Your task to perform on an android device: change alarm snooze length Image 0: 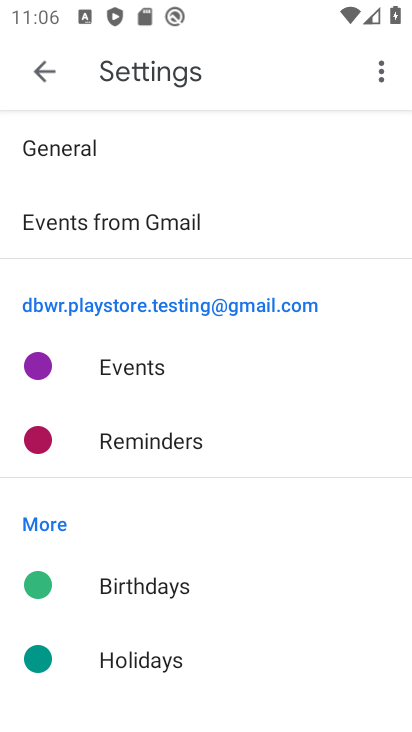
Step 0: press home button
Your task to perform on an android device: change alarm snooze length Image 1: 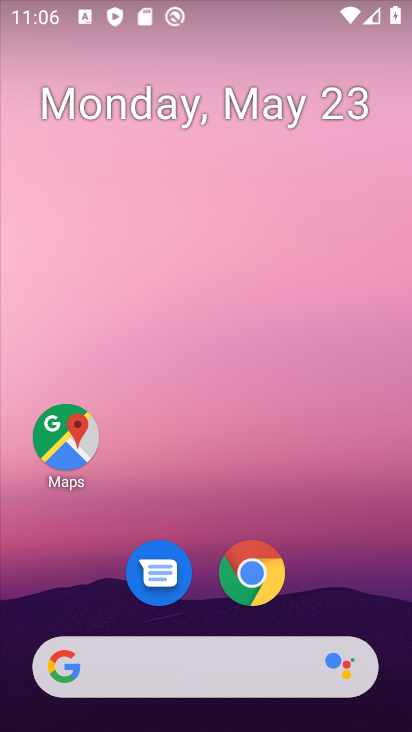
Step 1: drag from (168, 627) to (196, 130)
Your task to perform on an android device: change alarm snooze length Image 2: 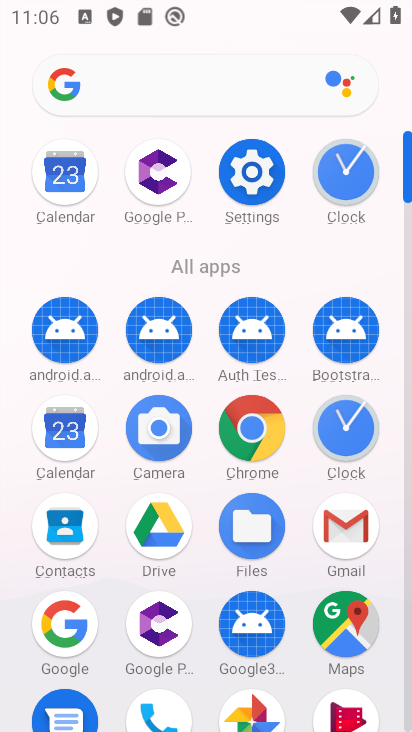
Step 2: click (328, 170)
Your task to perform on an android device: change alarm snooze length Image 3: 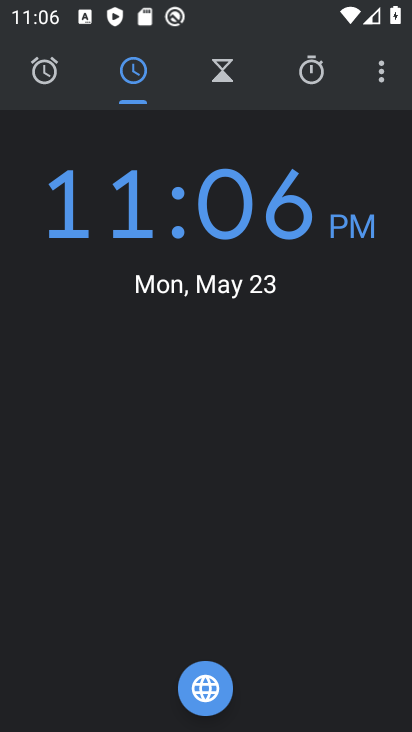
Step 3: click (375, 75)
Your task to perform on an android device: change alarm snooze length Image 4: 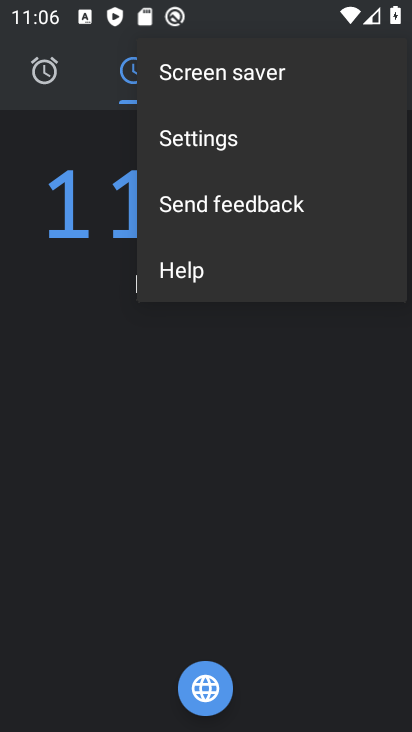
Step 4: click (233, 133)
Your task to perform on an android device: change alarm snooze length Image 5: 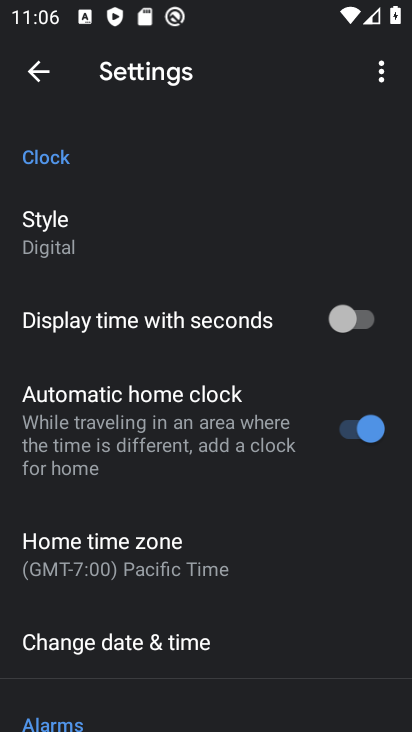
Step 5: drag from (83, 640) to (115, 268)
Your task to perform on an android device: change alarm snooze length Image 6: 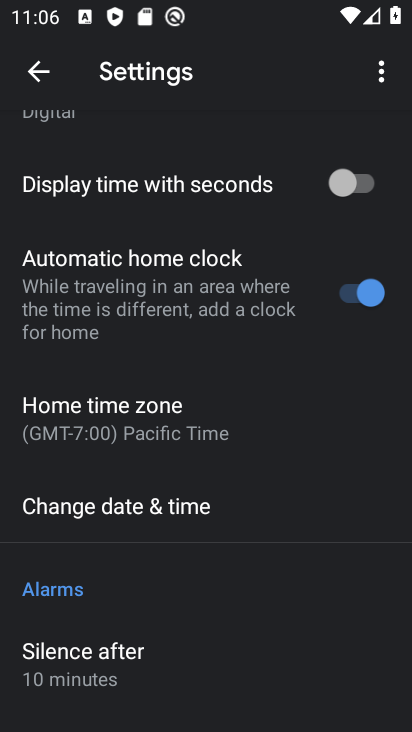
Step 6: drag from (117, 621) to (132, 98)
Your task to perform on an android device: change alarm snooze length Image 7: 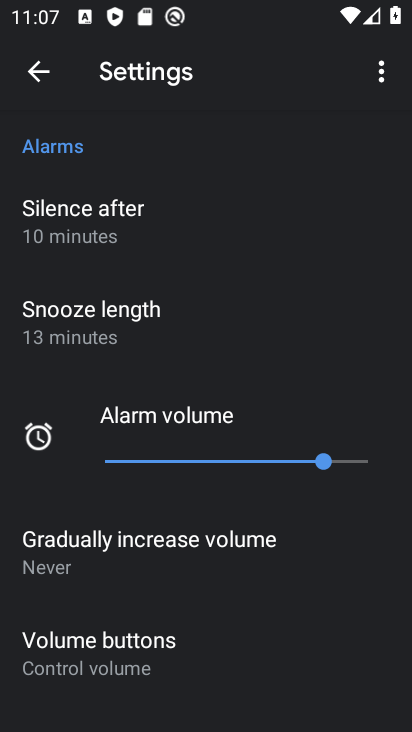
Step 7: click (114, 318)
Your task to perform on an android device: change alarm snooze length Image 8: 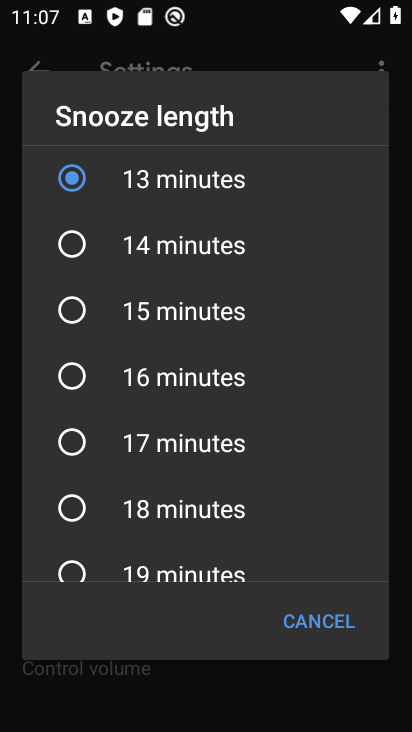
Step 8: click (158, 253)
Your task to perform on an android device: change alarm snooze length Image 9: 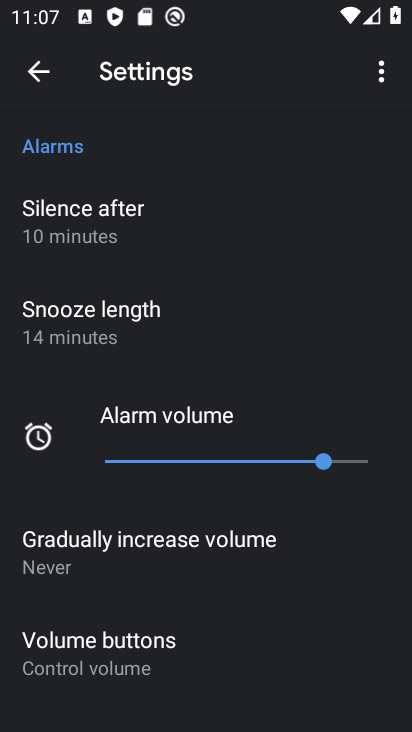
Step 9: task complete